Your task to perform on an android device: install app "Google Sheets" Image 0: 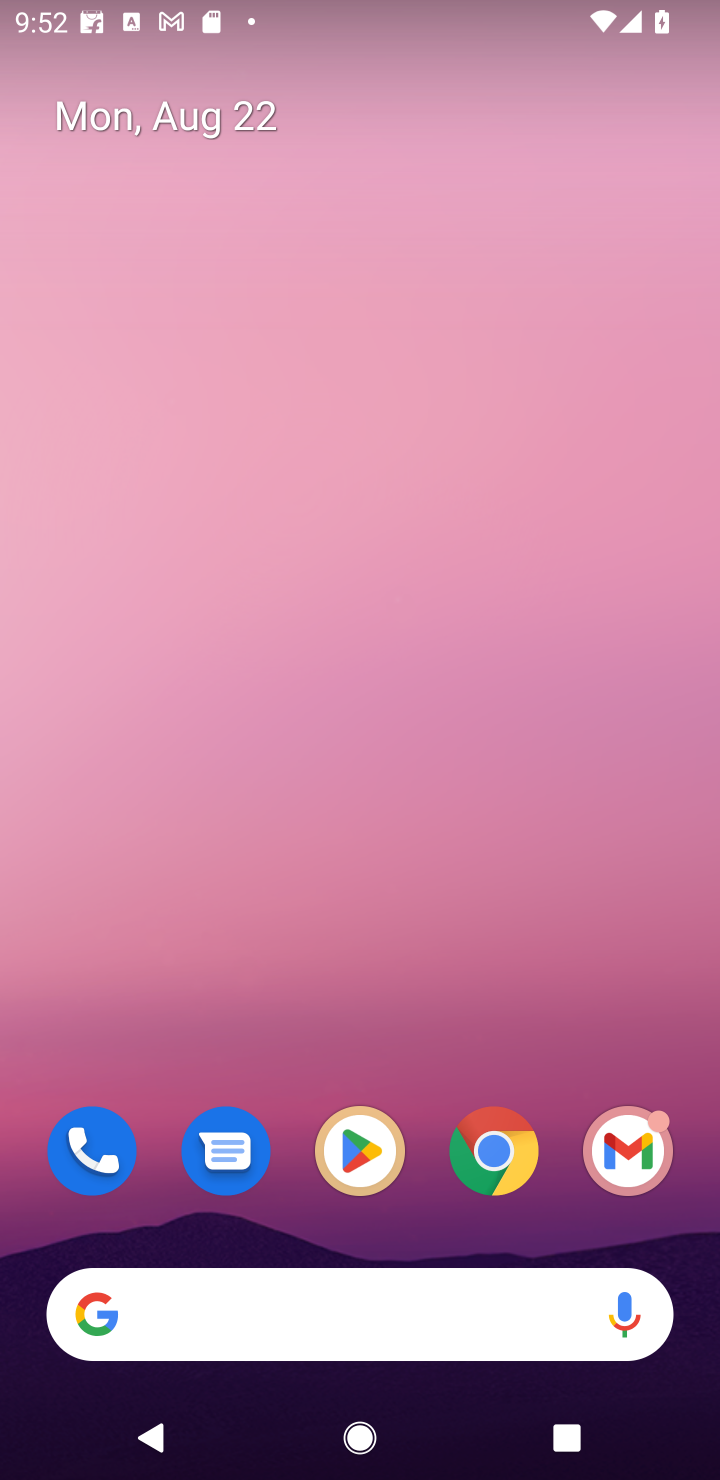
Step 0: click (325, 1141)
Your task to perform on an android device: install app "Google Sheets" Image 1: 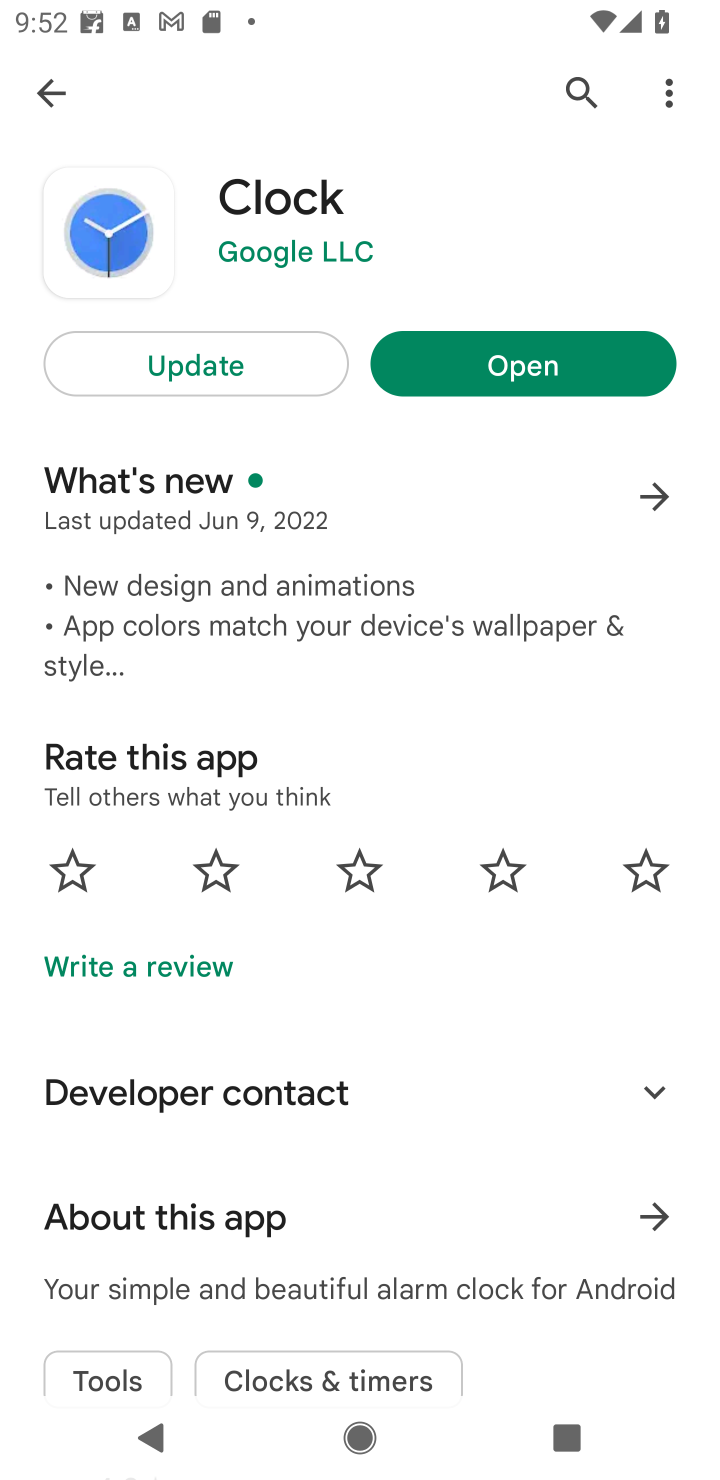
Step 1: click (570, 81)
Your task to perform on an android device: install app "Google Sheets" Image 2: 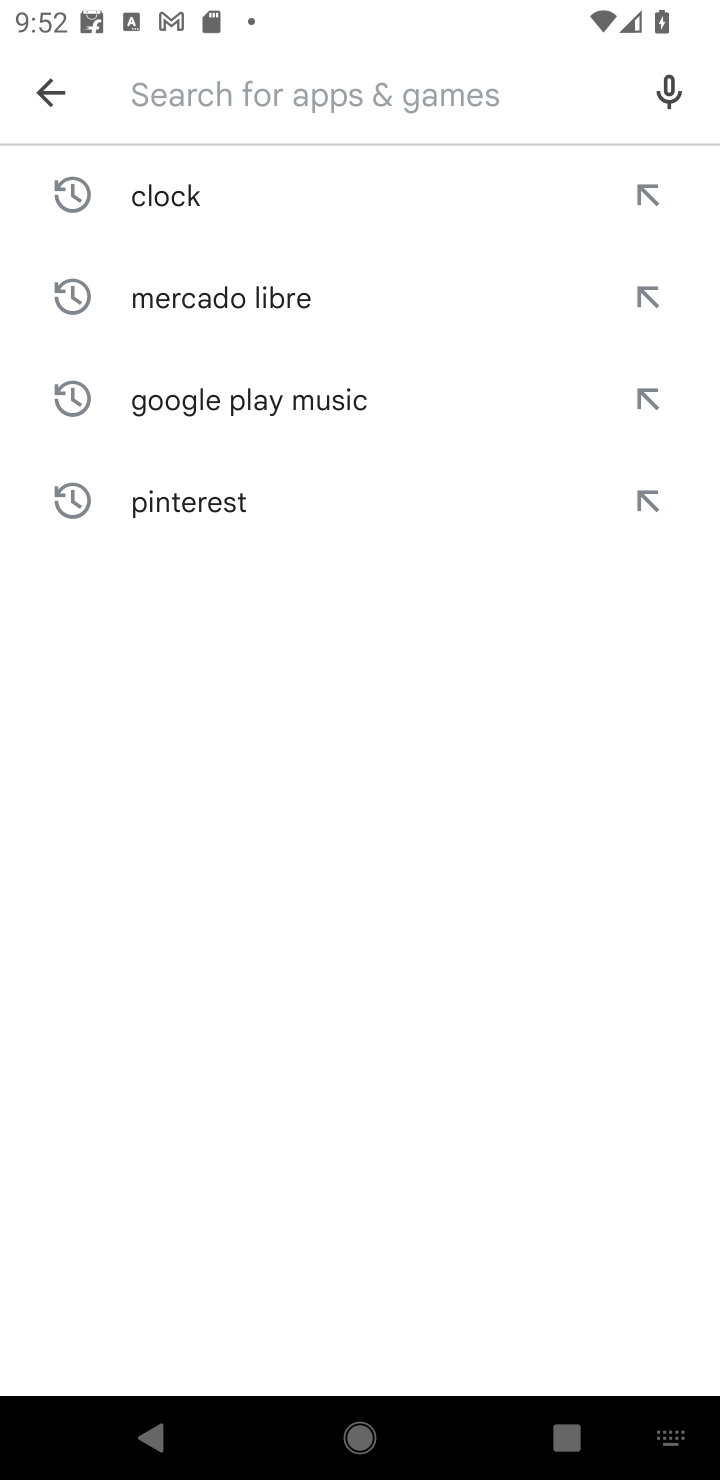
Step 2: type "Google Sheets"
Your task to perform on an android device: install app "Google Sheets" Image 3: 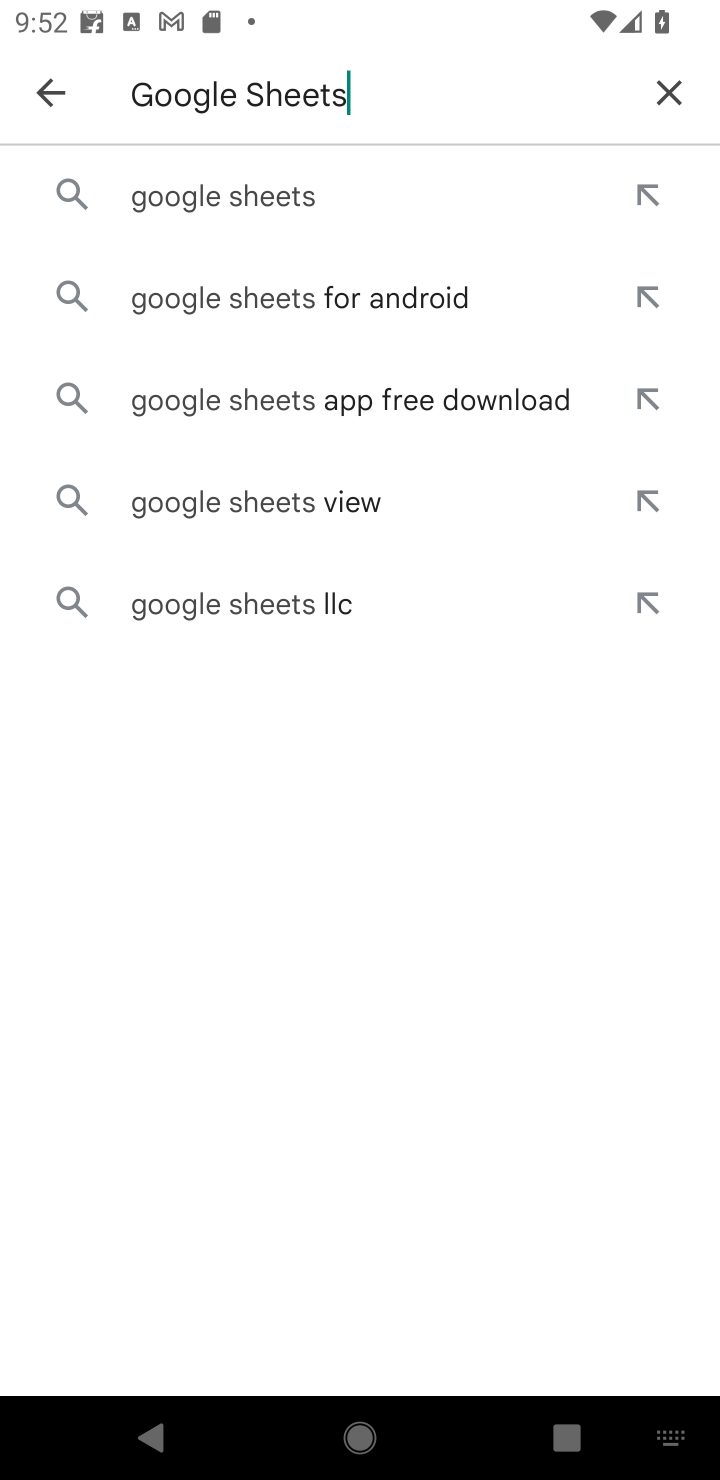
Step 3: click (198, 194)
Your task to perform on an android device: install app "Google Sheets" Image 4: 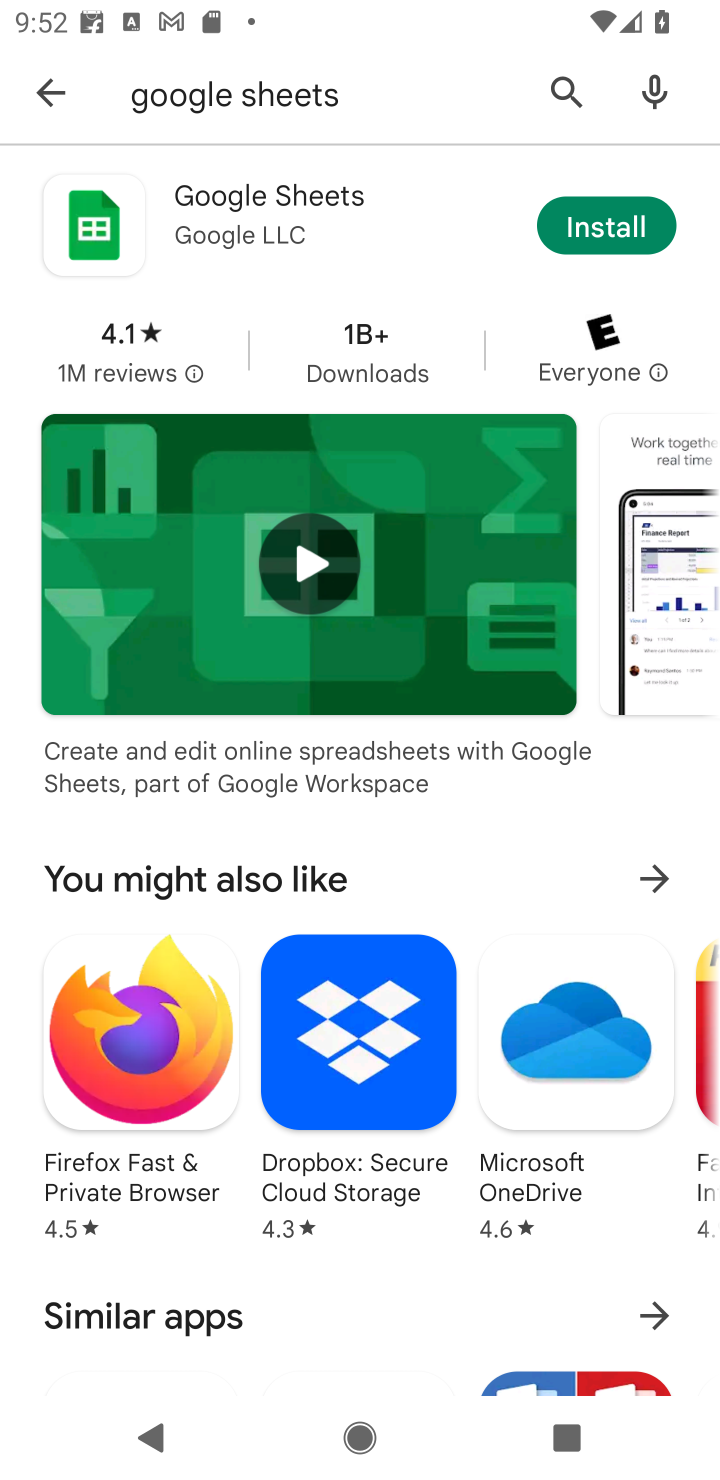
Step 4: click (596, 211)
Your task to perform on an android device: install app "Google Sheets" Image 5: 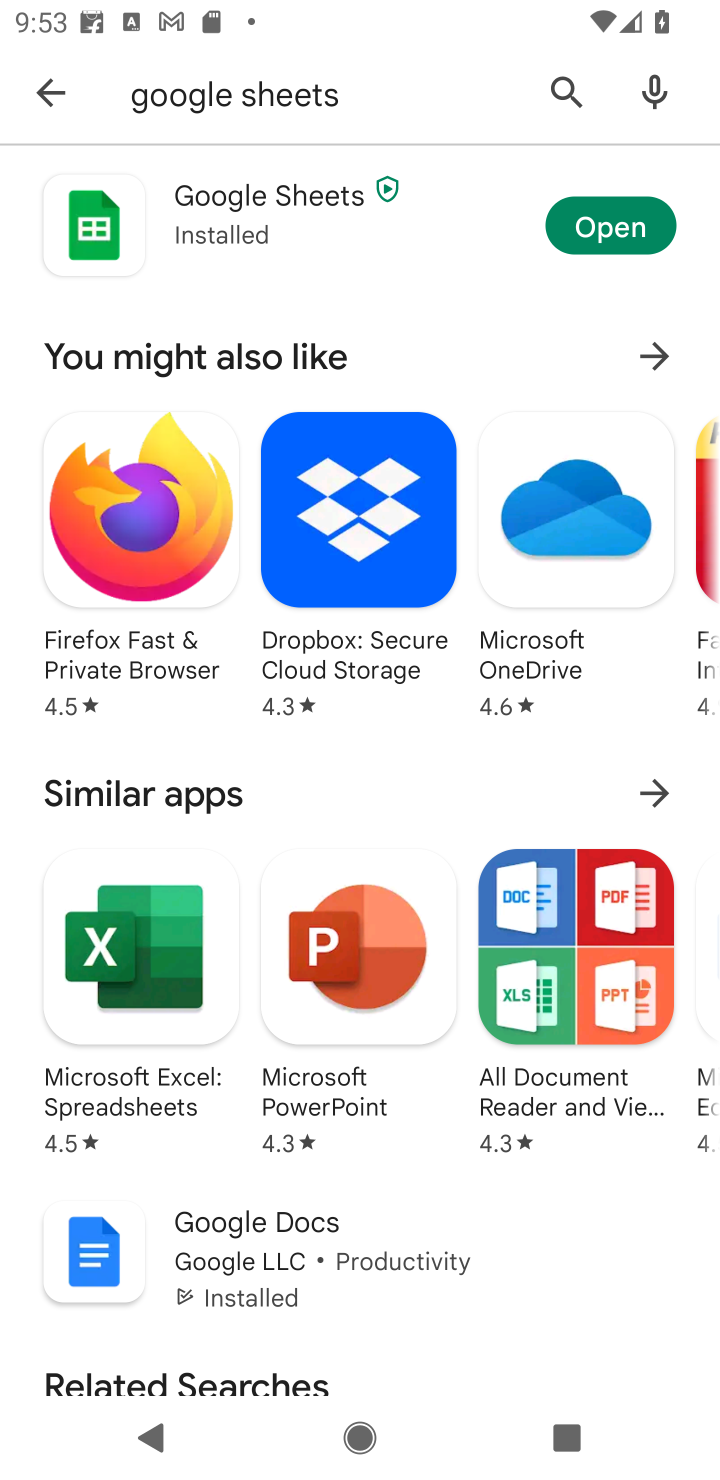
Step 5: task complete